Your task to perform on an android device: Go to battery settings Image 0: 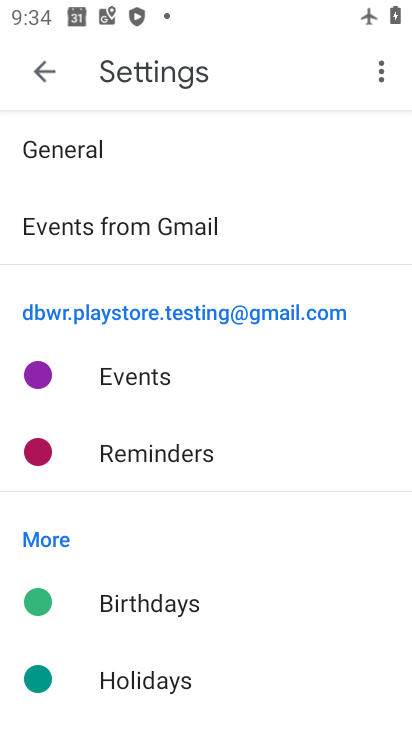
Step 0: press home button
Your task to perform on an android device: Go to battery settings Image 1: 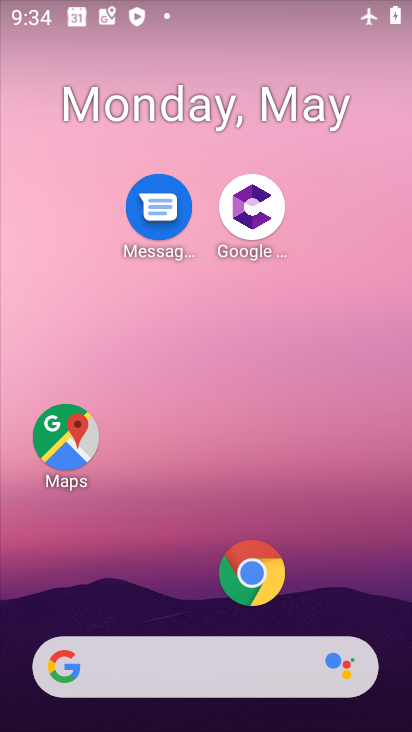
Step 1: drag from (239, 658) to (264, 86)
Your task to perform on an android device: Go to battery settings Image 2: 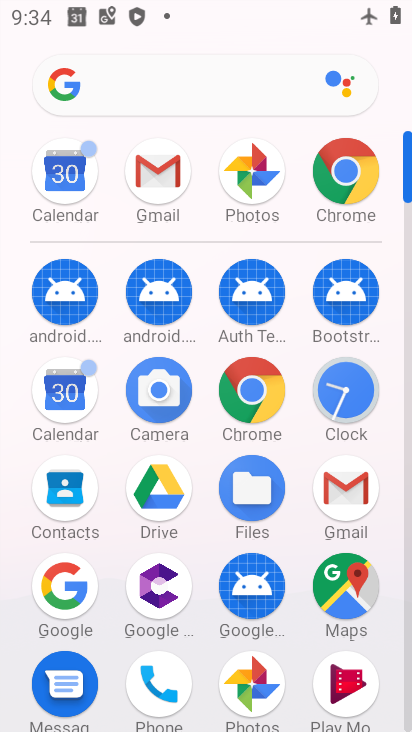
Step 2: drag from (206, 501) to (256, 250)
Your task to perform on an android device: Go to battery settings Image 3: 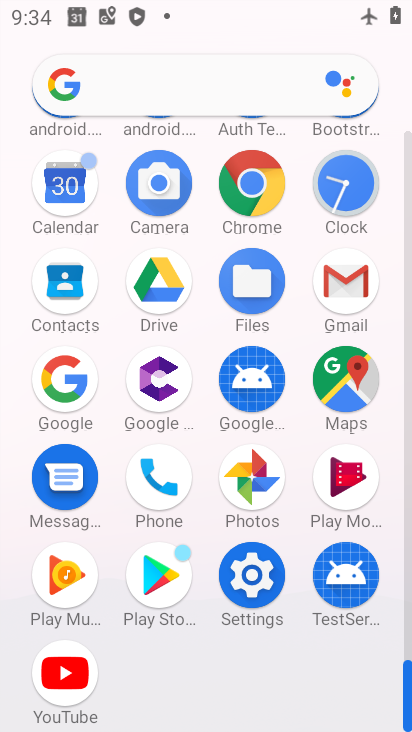
Step 3: click (255, 576)
Your task to perform on an android device: Go to battery settings Image 4: 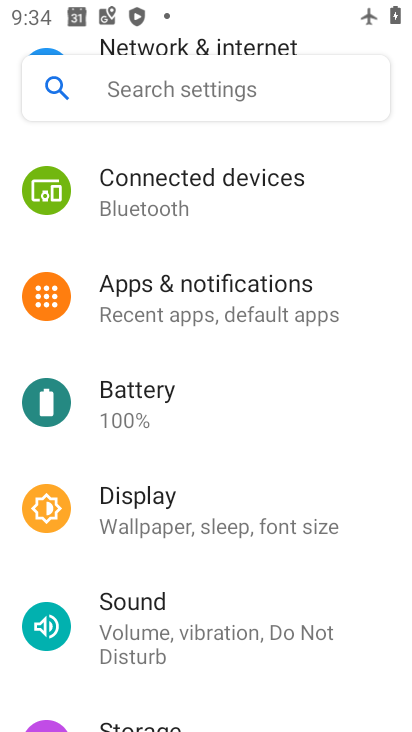
Step 4: click (160, 407)
Your task to perform on an android device: Go to battery settings Image 5: 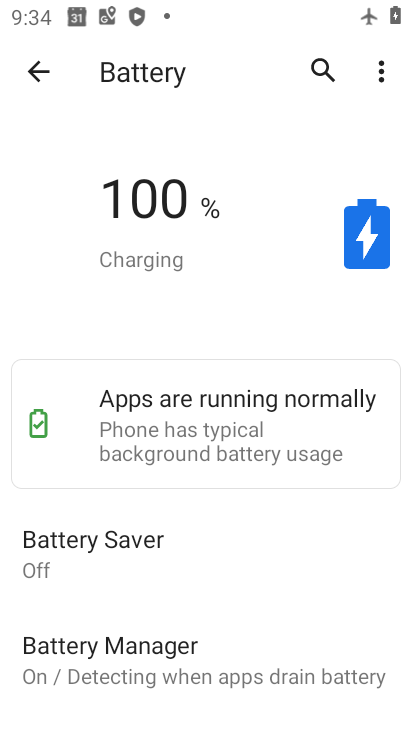
Step 5: task complete